Your task to perform on an android device: open a bookmark in the chrome app Image 0: 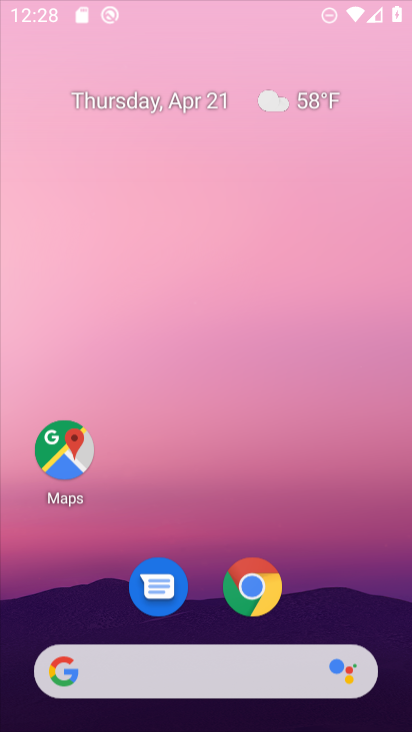
Step 0: click (317, 342)
Your task to perform on an android device: open a bookmark in the chrome app Image 1: 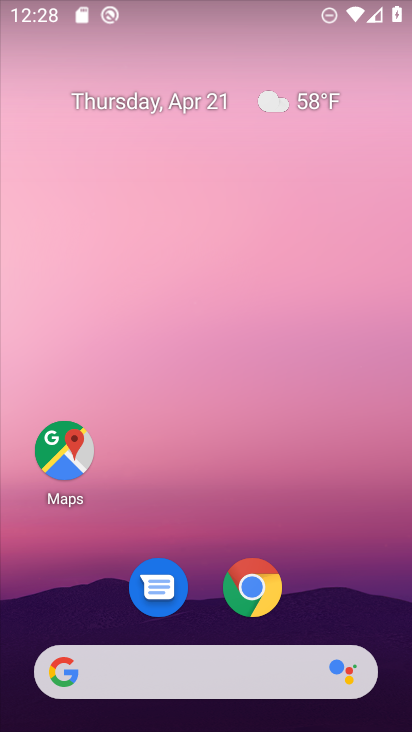
Step 1: click (263, 585)
Your task to perform on an android device: open a bookmark in the chrome app Image 2: 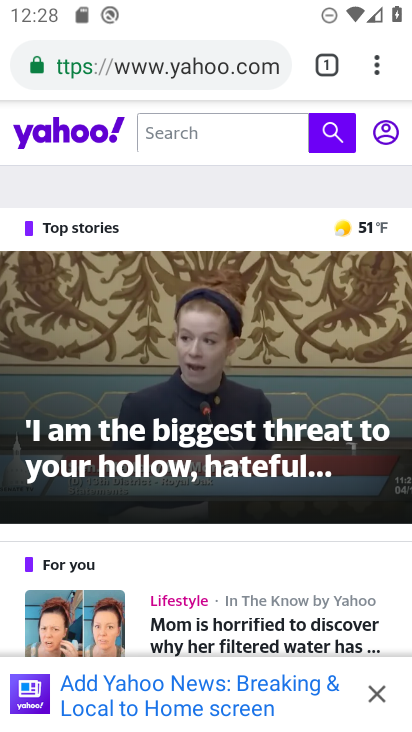
Step 2: click (376, 70)
Your task to perform on an android device: open a bookmark in the chrome app Image 3: 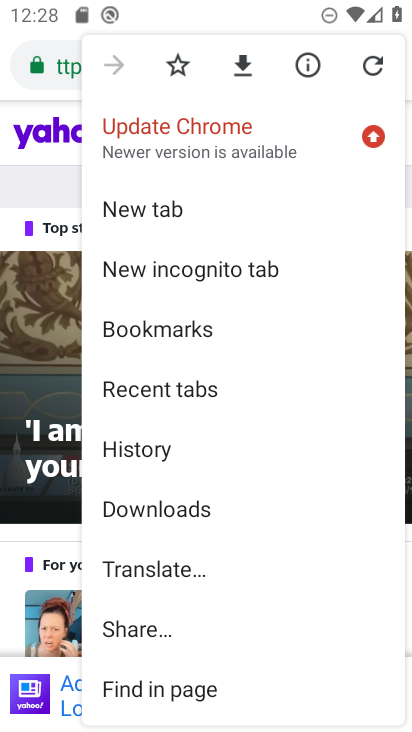
Step 3: click (174, 337)
Your task to perform on an android device: open a bookmark in the chrome app Image 4: 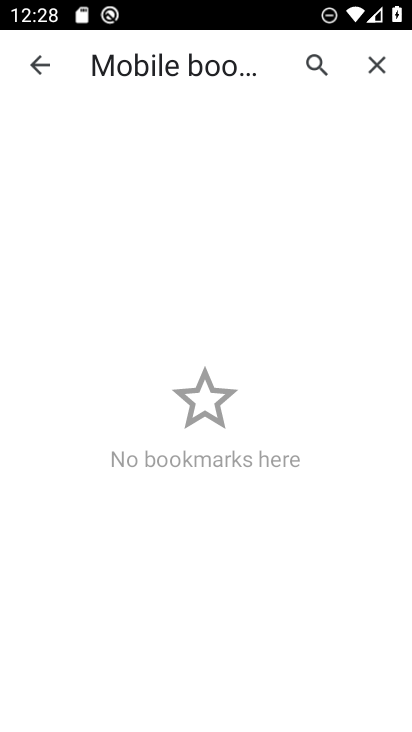
Step 4: click (30, 60)
Your task to perform on an android device: open a bookmark in the chrome app Image 5: 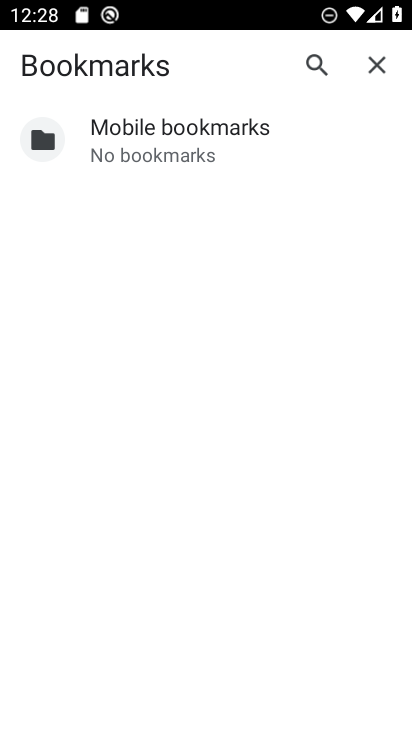
Step 5: click (379, 61)
Your task to perform on an android device: open a bookmark in the chrome app Image 6: 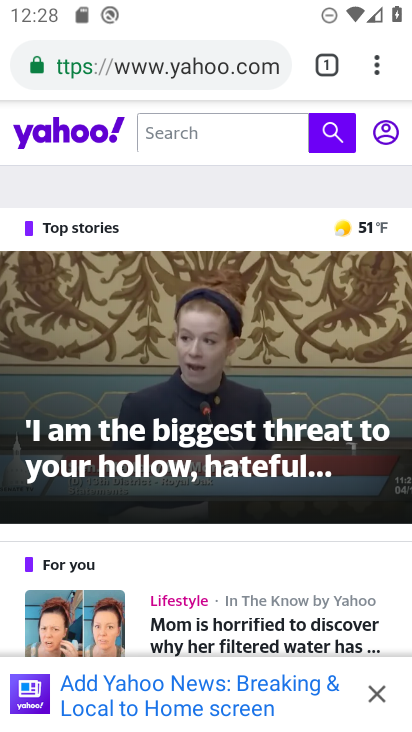
Step 6: click (366, 60)
Your task to perform on an android device: open a bookmark in the chrome app Image 7: 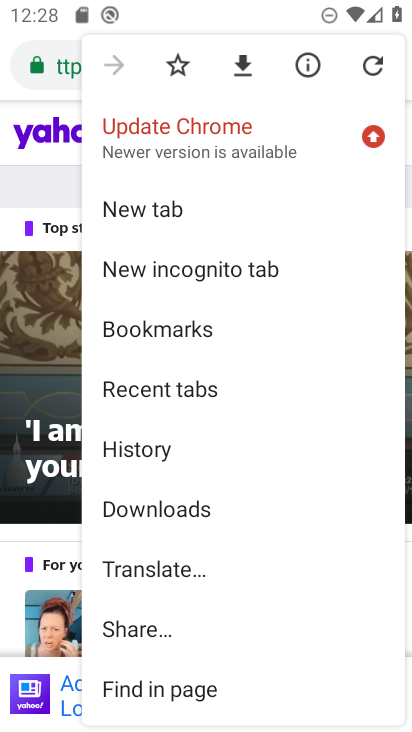
Step 7: click (122, 220)
Your task to perform on an android device: open a bookmark in the chrome app Image 8: 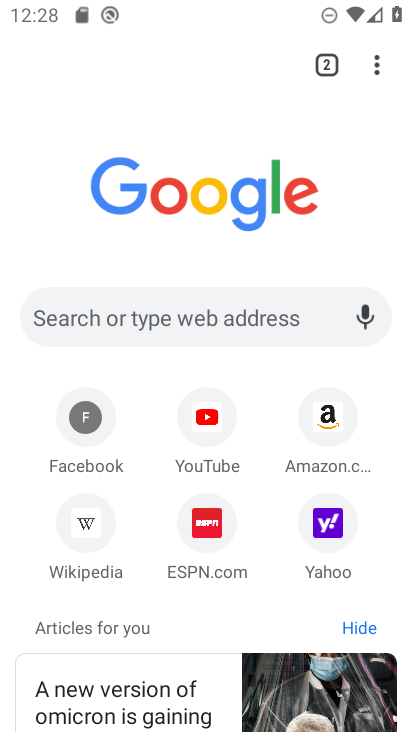
Step 8: click (77, 524)
Your task to perform on an android device: open a bookmark in the chrome app Image 9: 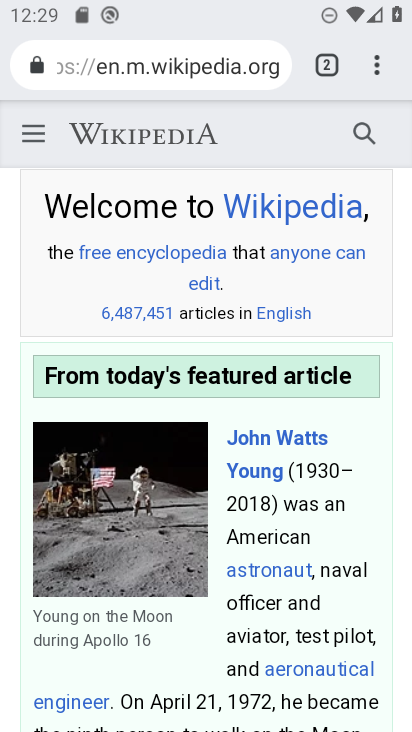
Step 9: task complete